Your task to perform on an android device: change the clock display to digital Image 0: 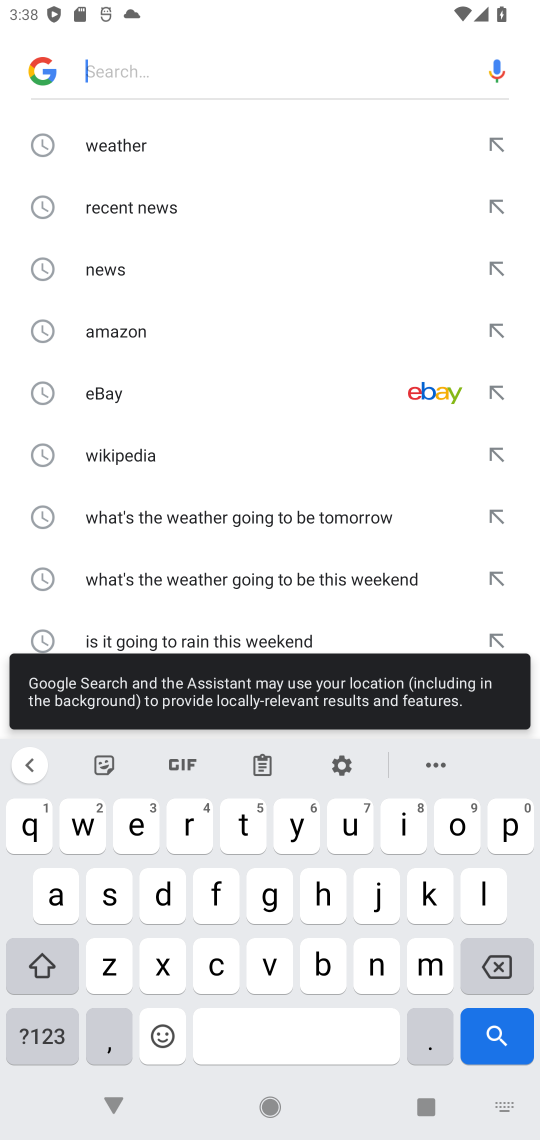
Step 0: press home button
Your task to perform on an android device: change the clock display to digital Image 1: 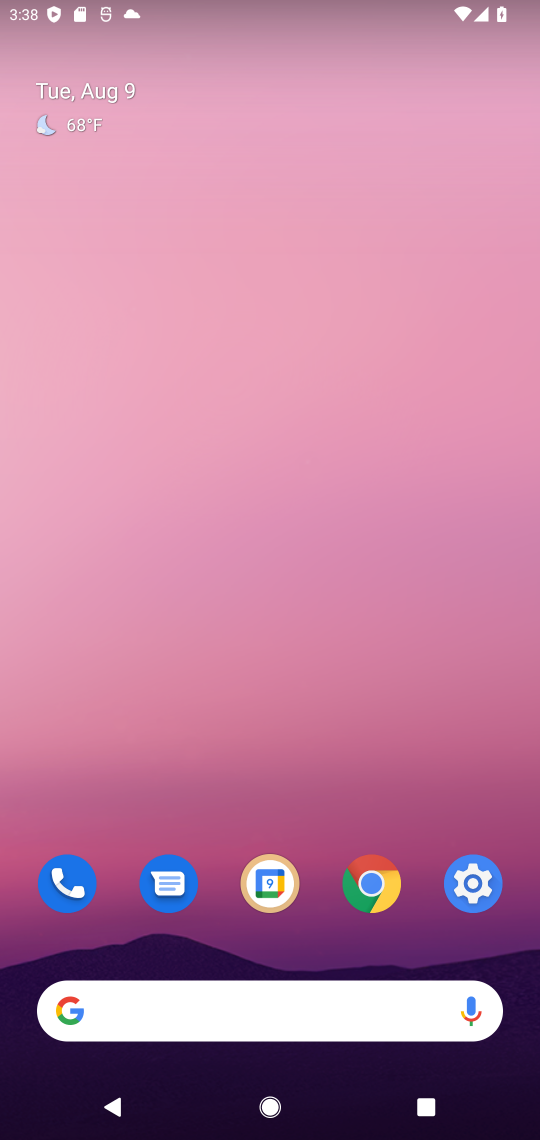
Step 1: drag from (362, 1046) to (272, 347)
Your task to perform on an android device: change the clock display to digital Image 2: 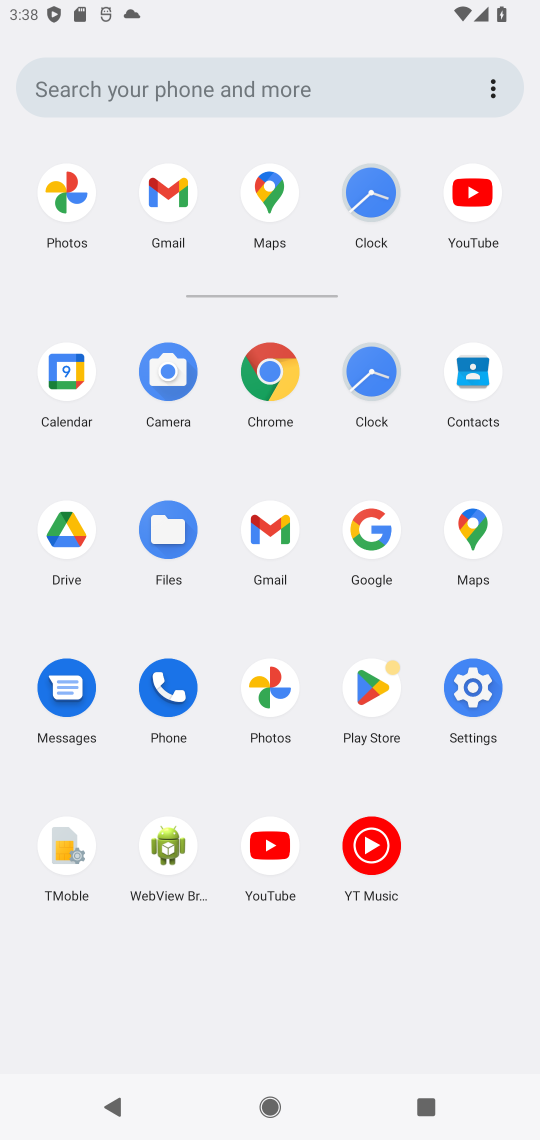
Step 2: click (363, 379)
Your task to perform on an android device: change the clock display to digital Image 3: 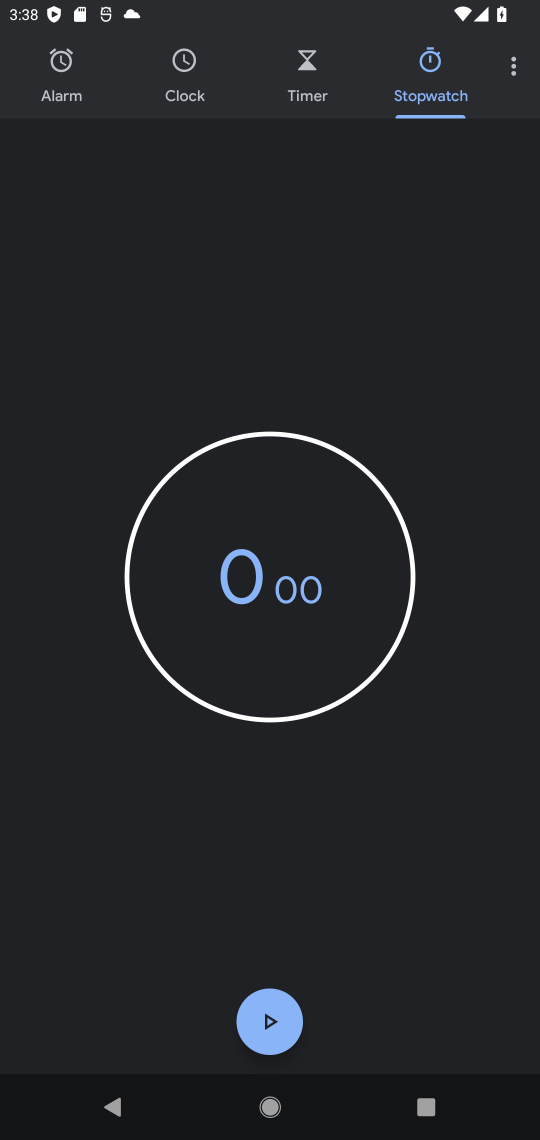
Step 3: click (499, 61)
Your task to perform on an android device: change the clock display to digital Image 4: 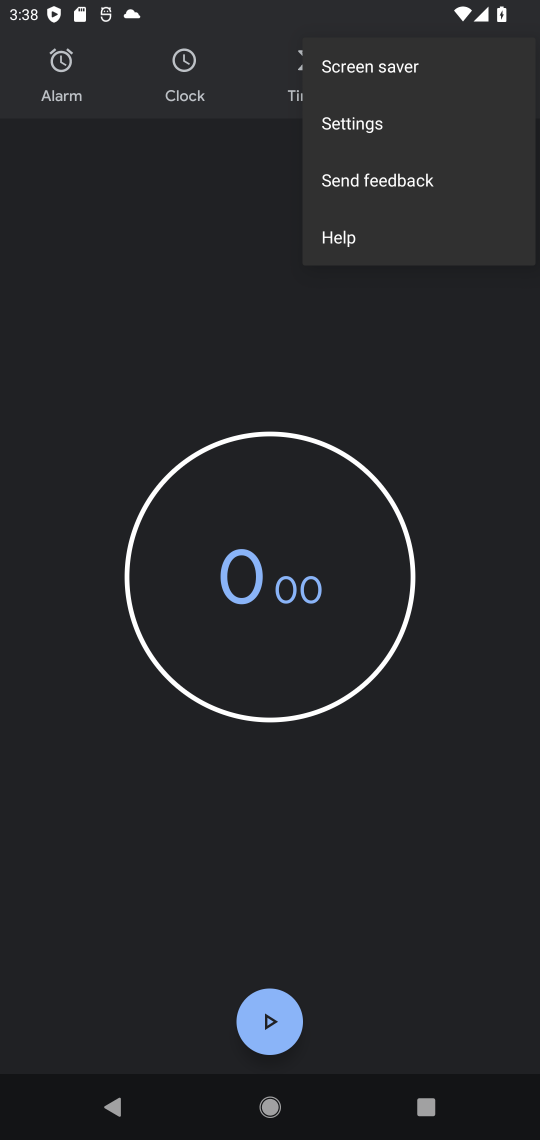
Step 4: click (370, 122)
Your task to perform on an android device: change the clock display to digital Image 5: 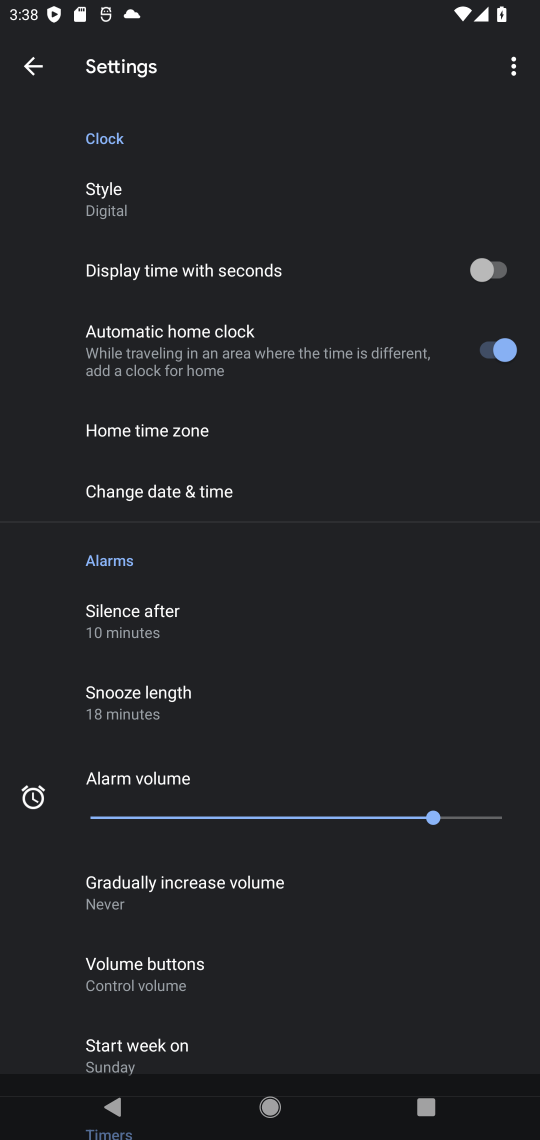
Step 5: click (176, 201)
Your task to perform on an android device: change the clock display to digital Image 6: 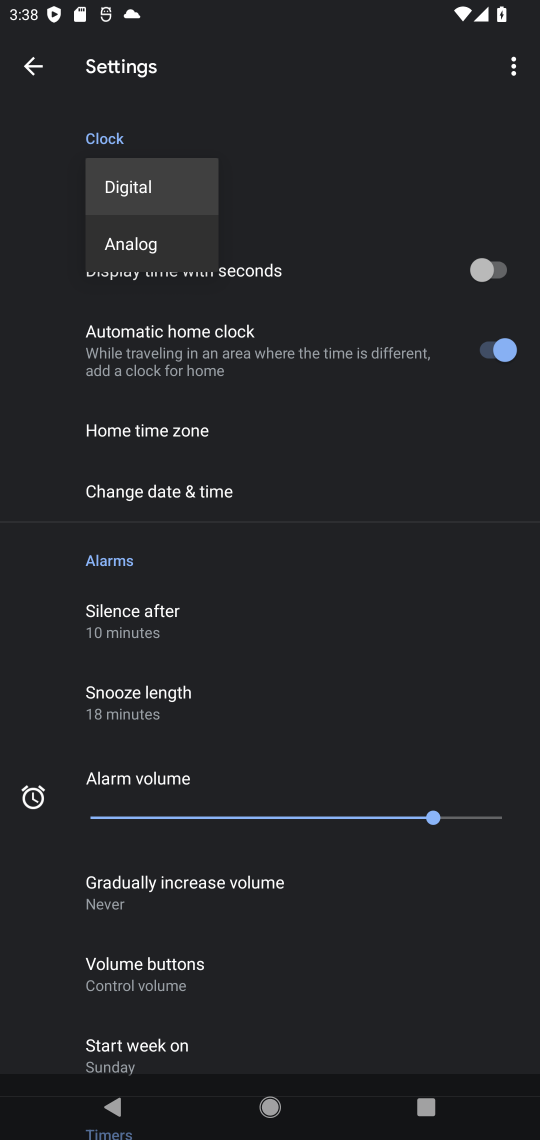
Step 6: click (140, 192)
Your task to perform on an android device: change the clock display to digital Image 7: 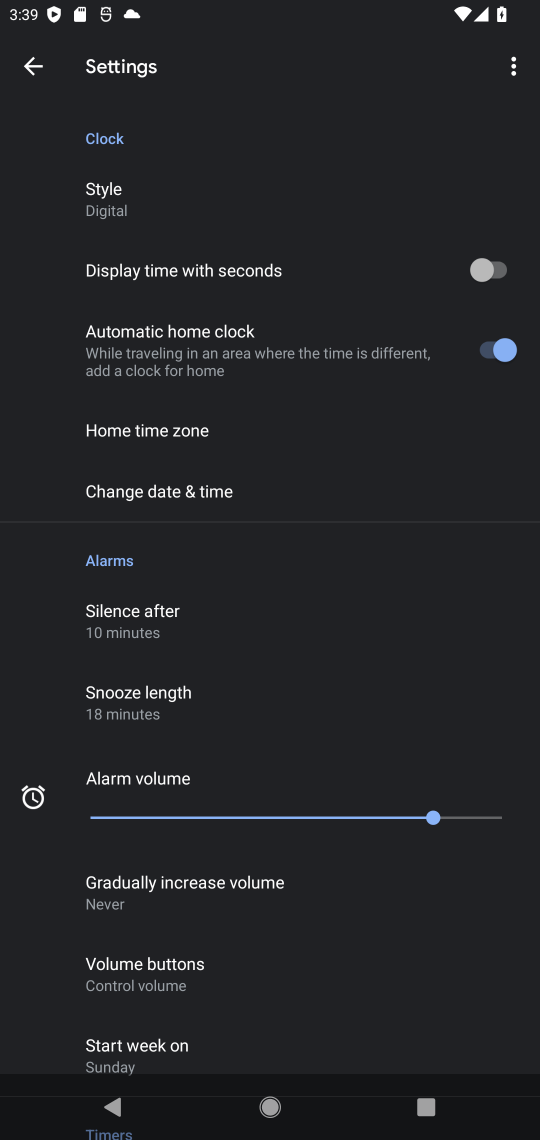
Step 7: task complete